Your task to perform on an android device: turn off airplane mode Image 0: 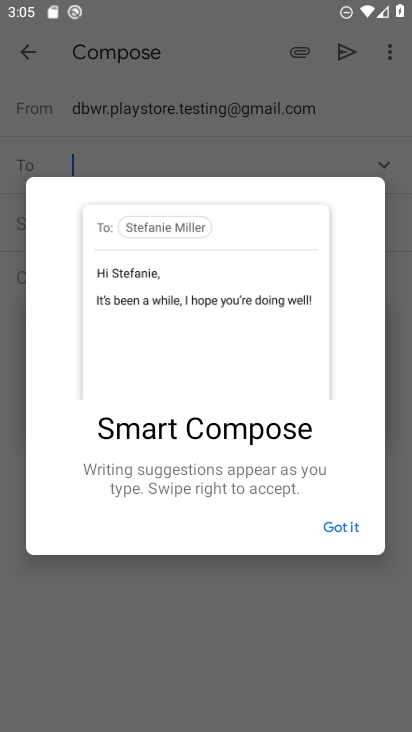
Step 0: press home button
Your task to perform on an android device: turn off airplane mode Image 1: 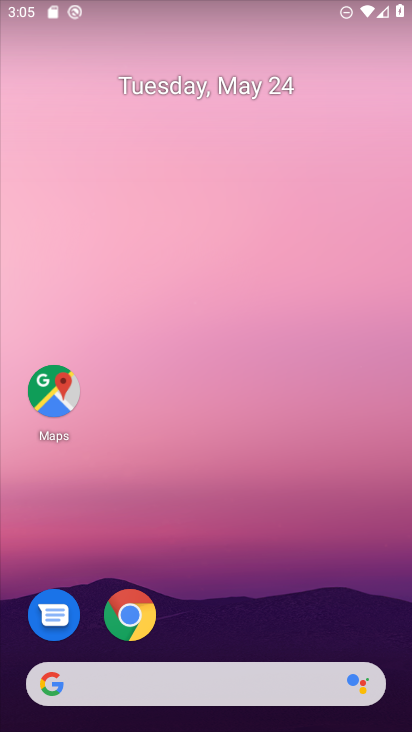
Step 1: drag from (313, 629) to (310, 329)
Your task to perform on an android device: turn off airplane mode Image 2: 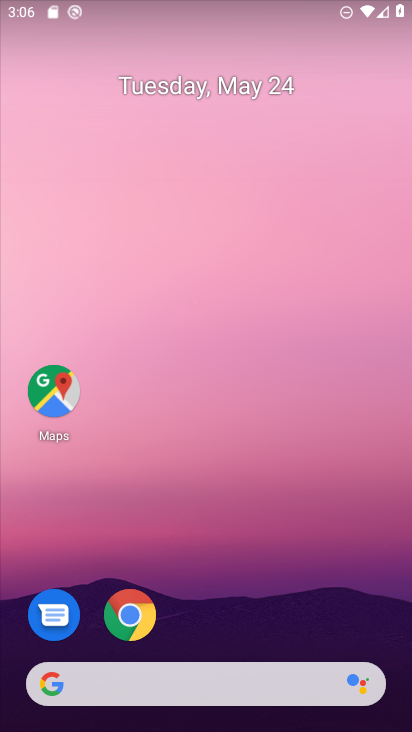
Step 2: drag from (274, 601) to (260, 102)
Your task to perform on an android device: turn off airplane mode Image 3: 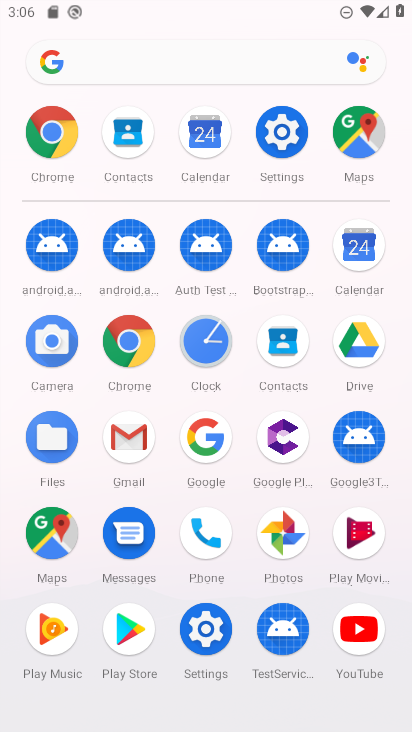
Step 3: click (284, 147)
Your task to perform on an android device: turn off airplane mode Image 4: 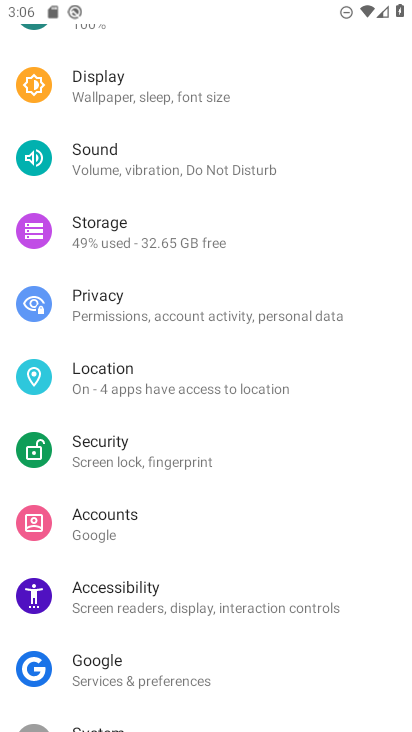
Step 4: drag from (284, 147) to (277, 602)
Your task to perform on an android device: turn off airplane mode Image 5: 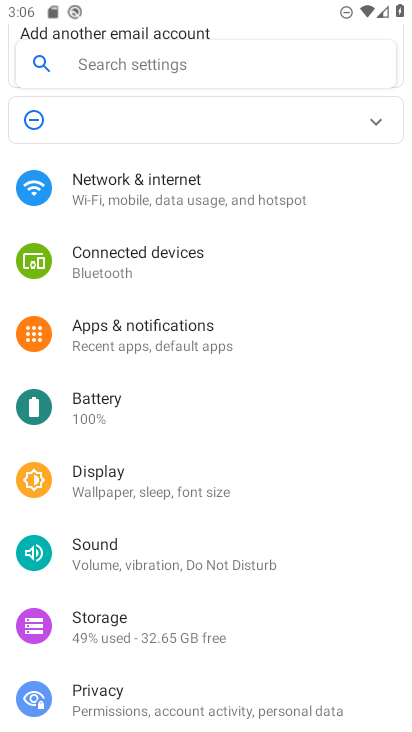
Step 5: drag from (312, 348) to (313, 454)
Your task to perform on an android device: turn off airplane mode Image 6: 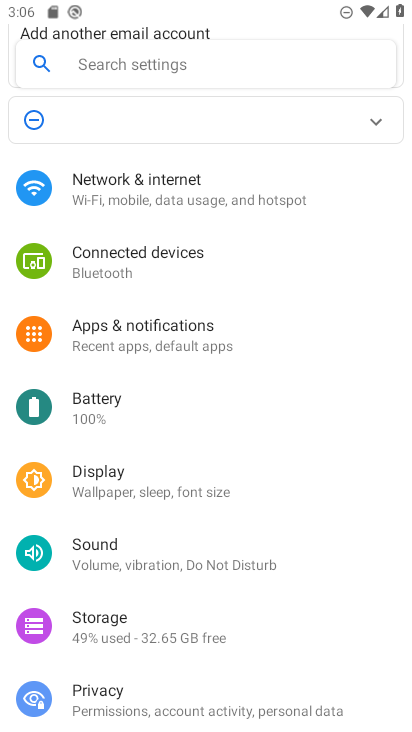
Step 6: drag from (156, 540) to (197, 282)
Your task to perform on an android device: turn off airplane mode Image 7: 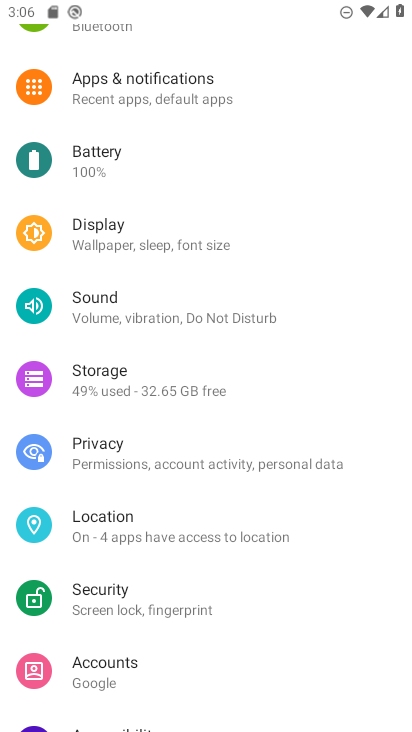
Step 7: drag from (167, 547) to (211, 265)
Your task to perform on an android device: turn off airplane mode Image 8: 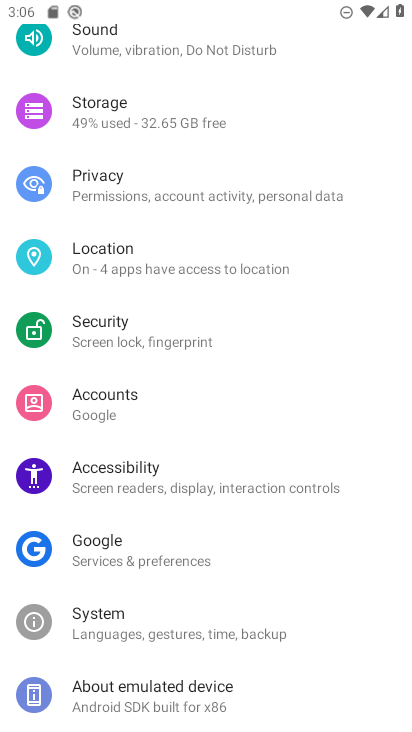
Step 8: drag from (244, 566) to (271, 325)
Your task to perform on an android device: turn off airplane mode Image 9: 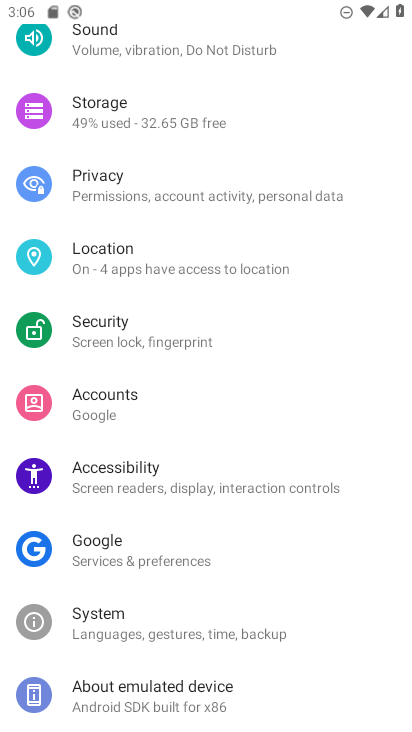
Step 9: drag from (180, 180) to (198, 711)
Your task to perform on an android device: turn off airplane mode Image 10: 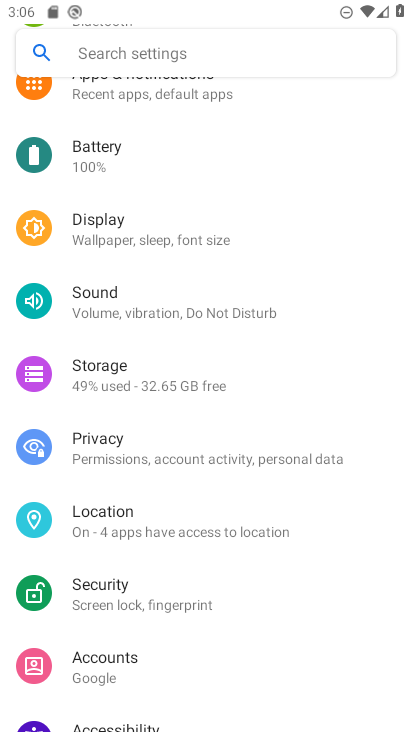
Step 10: drag from (246, 264) to (179, 687)
Your task to perform on an android device: turn off airplane mode Image 11: 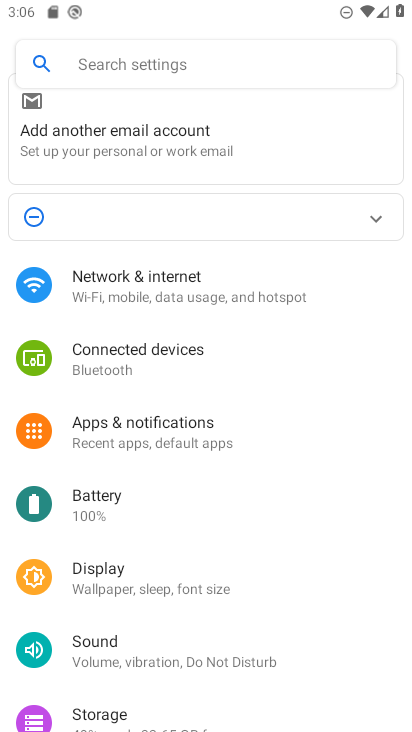
Step 11: drag from (239, 371) to (244, 704)
Your task to perform on an android device: turn off airplane mode Image 12: 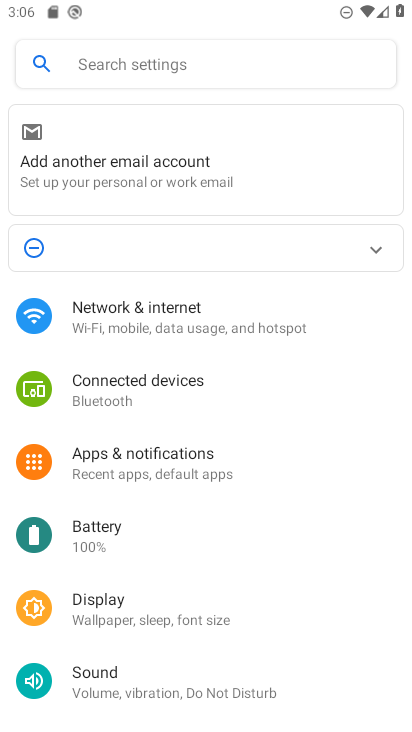
Step 12: click (297, 318)
Your task to perform on an android device: turn off airplane mode Image 13: 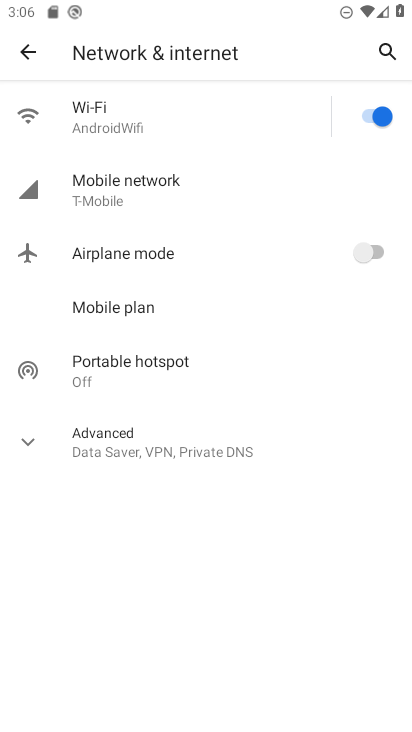
Step 13: task complete